Your task to perform on an android device: Open Google Maps and go to "Timeline" Image 0: 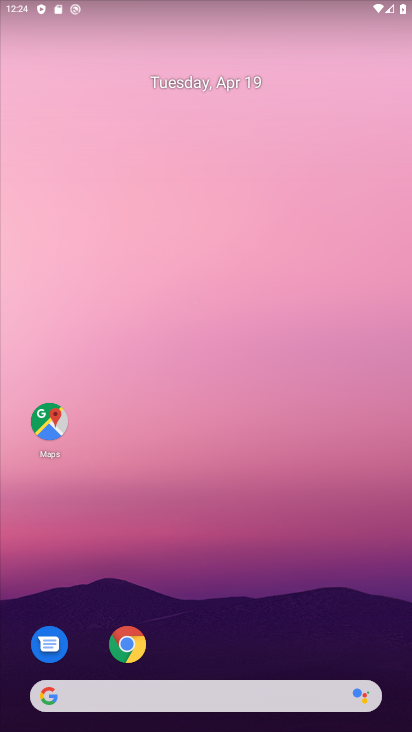
Step 0: drag from (321, 612) to (305, 184)
Your task to perform on an android device: Open Google Maps and go to "Timeline" Image 1: 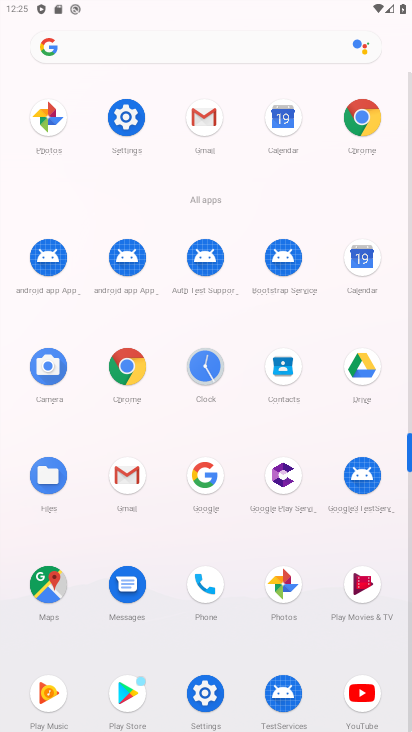
Step 1: click (275, 596)
Your task to perform on an android device: Open Google Maps and go to "Timeline" Image 2: 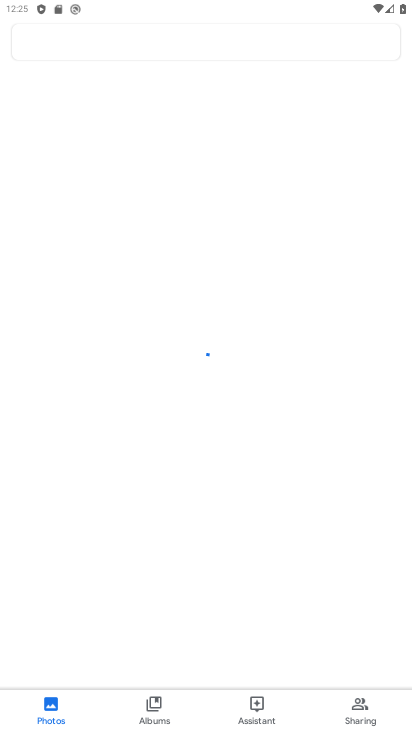
Step 2: press back button
Your task to perform on an android device: Open Google Maps and go to "Timeline" Image 3: 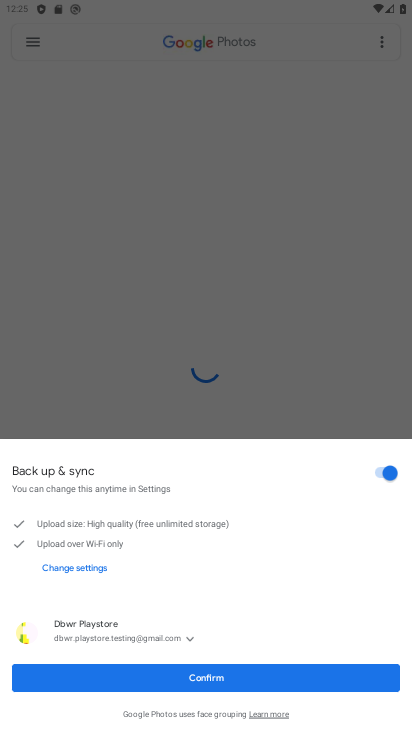
Step 3: press back button
Your task to perform on an android device: Open Google Maps and go to "Timeline" Image 4: 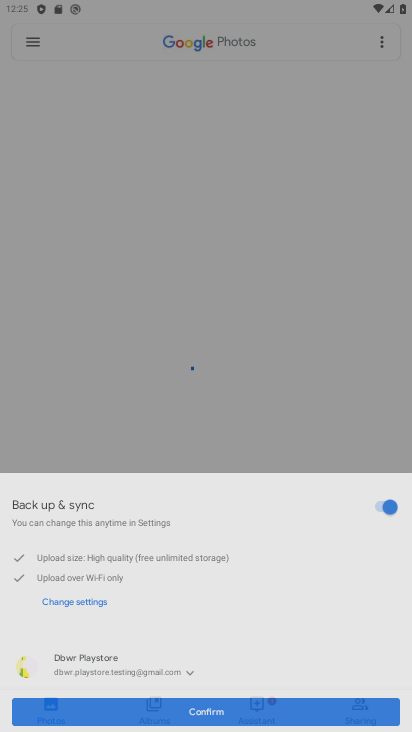
Step 4: press back button
Your task to perform on an android device: Open Google Maps and go to "Timeline" Image 5: 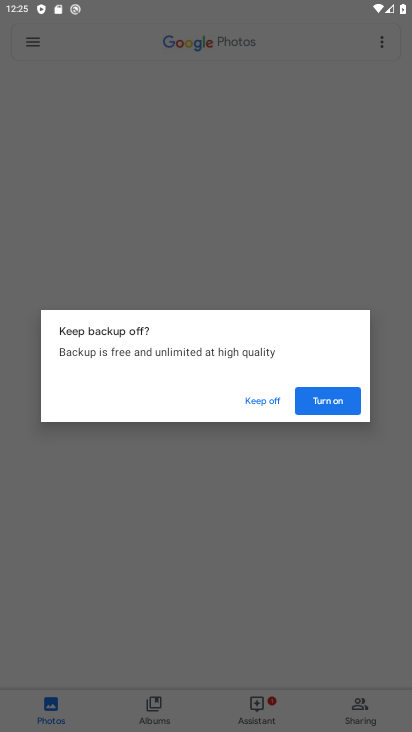
Step 5: click (259, 395)
Your task to perform on an android device: Open Google Maps and go to "Timeline" Image 6: 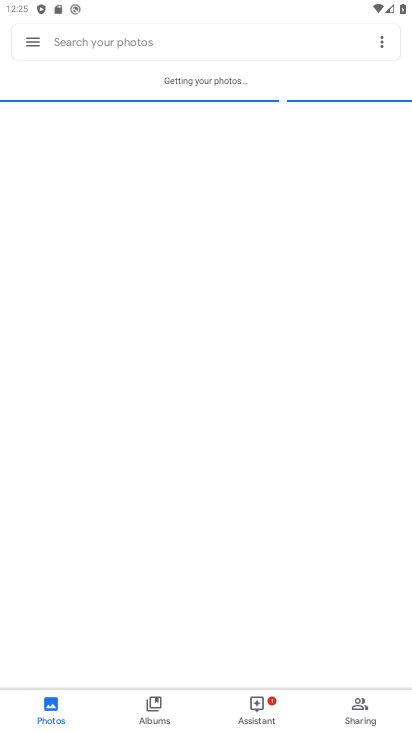
Step 6: press back button
Your task to perform on an android device: Open Google Maps and go to "Timeline" Image 7: 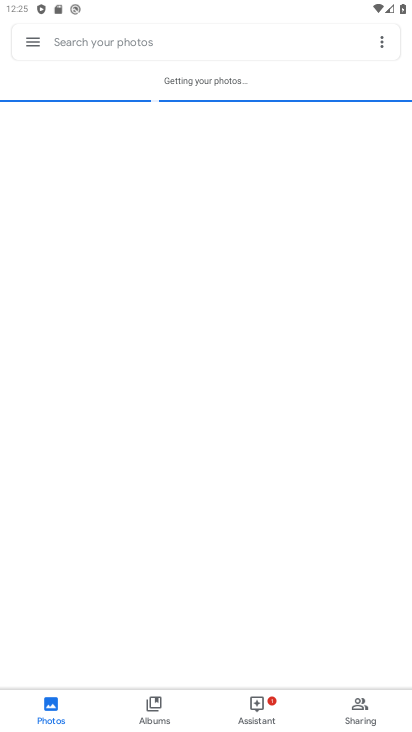
Step 7: press back button
Your task to perform on an android device: Open Google Maps and go to "Timeline" Image 8: 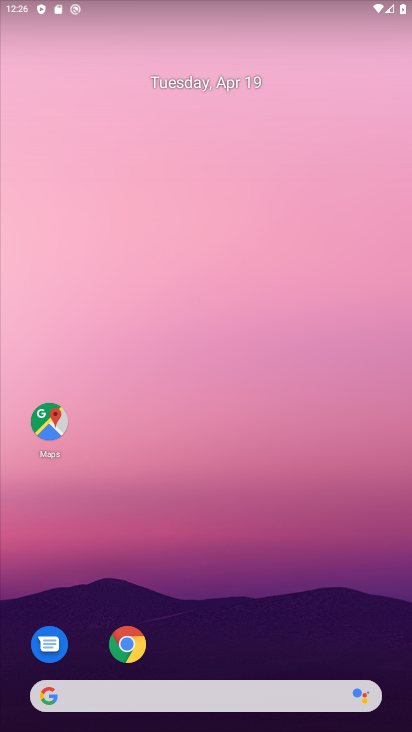
Step 8: drag from (265, 621) to (296, 197)
Your task to perform on an android device: Open Google Maps and go to "Timeline" Image 9: 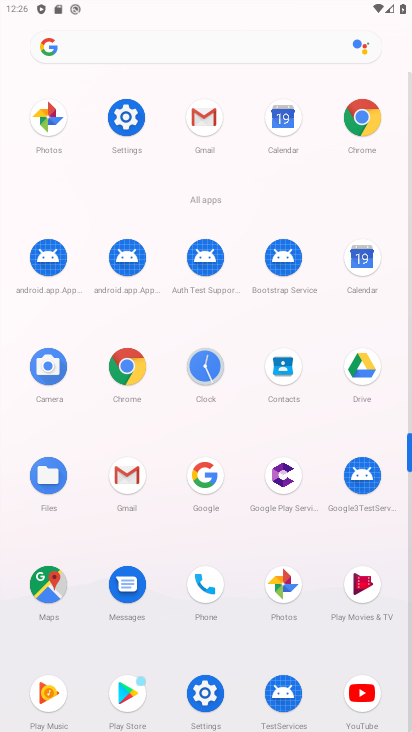
Step 9: click (61, 578)
Your task to perform on an android device: Open Google Maps and go to "Timeline" Image 10: 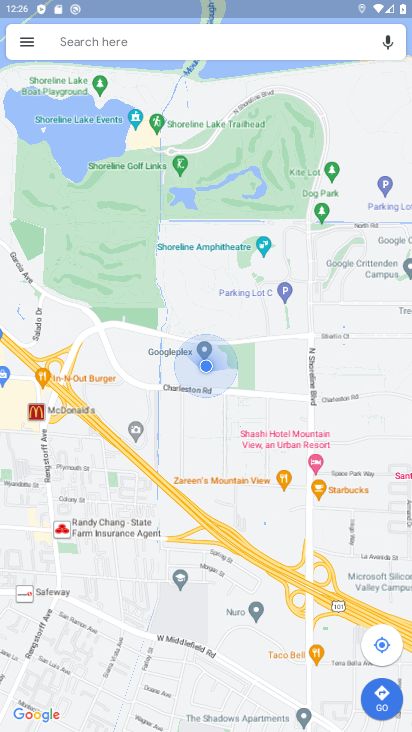
Step 10: click (34, 42)
Your task to perform on an android device: Open Google Maps and go to "Timeline" Image 11: 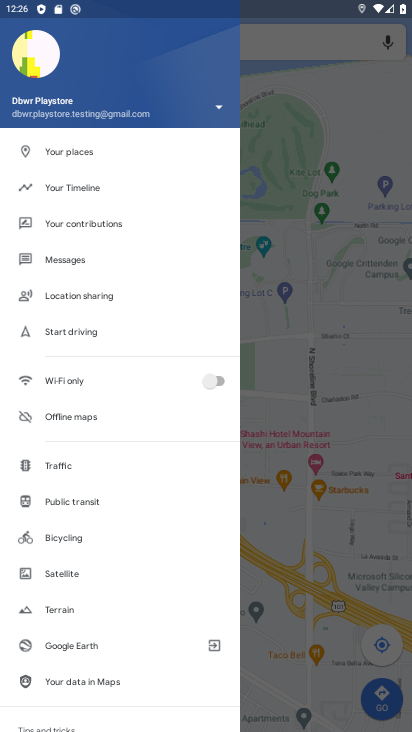
Step 11: click (112, 193)
Your task to perform on an android device: Open Google Maps and go to "Timeline" Image 12: 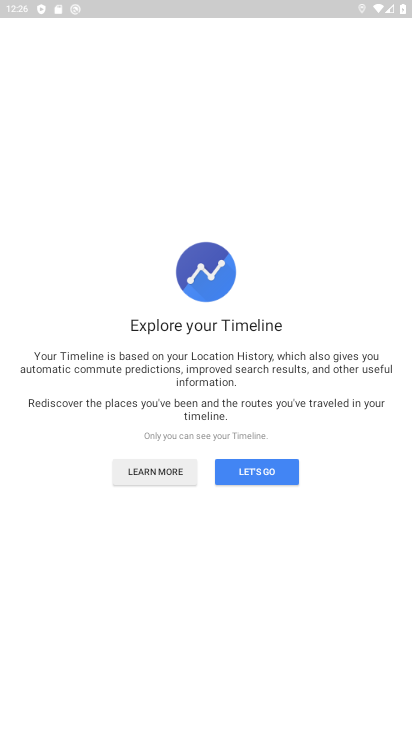
Step 12: task complete